Your task to perform on an android device: Clear all items from cart on newegg.com. Add usb-c to usb-b to the cart on newegg.com, then select checkout. Image 0: 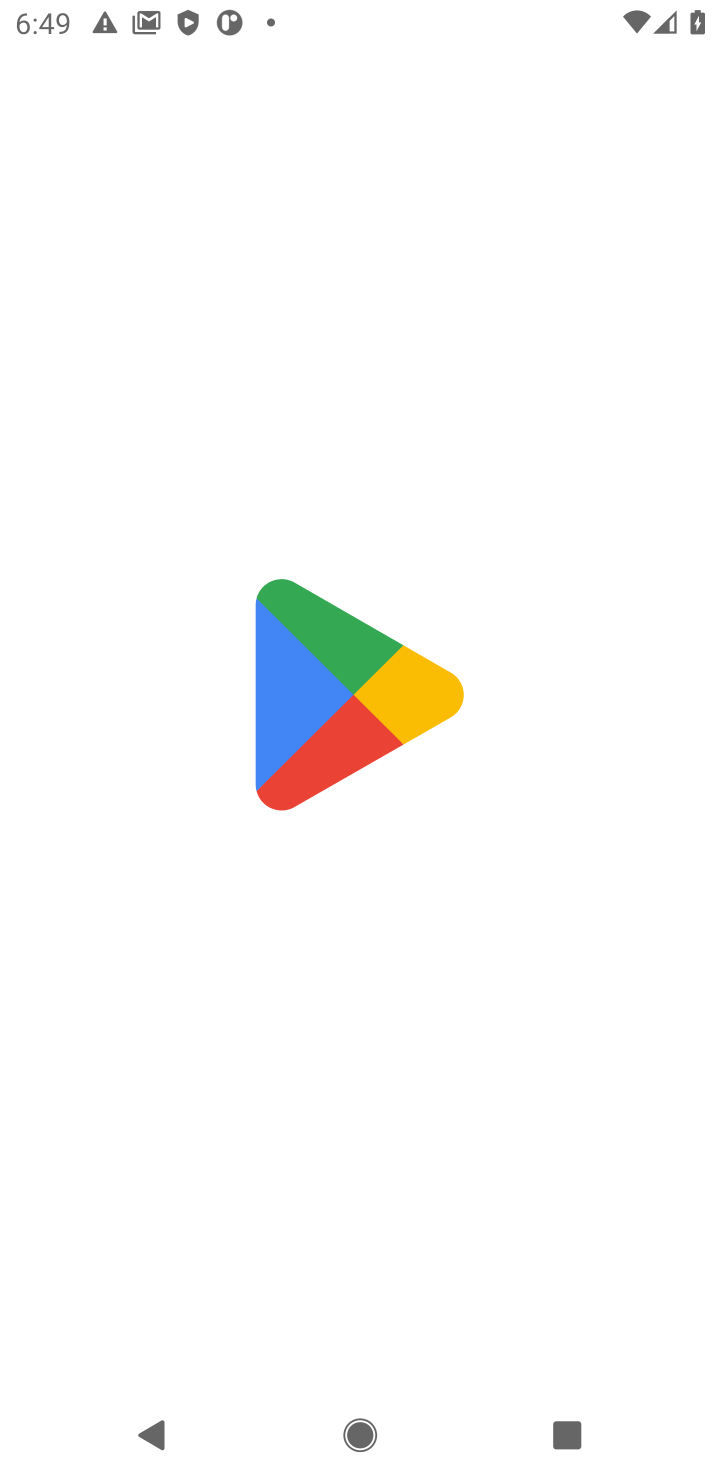
Step 0: press home button
Your task to perform on an android device: Clear all items from cart on newegg.com. Add usb-c to usb-b to the cart on newegg.com, then select checkout. Image 1: 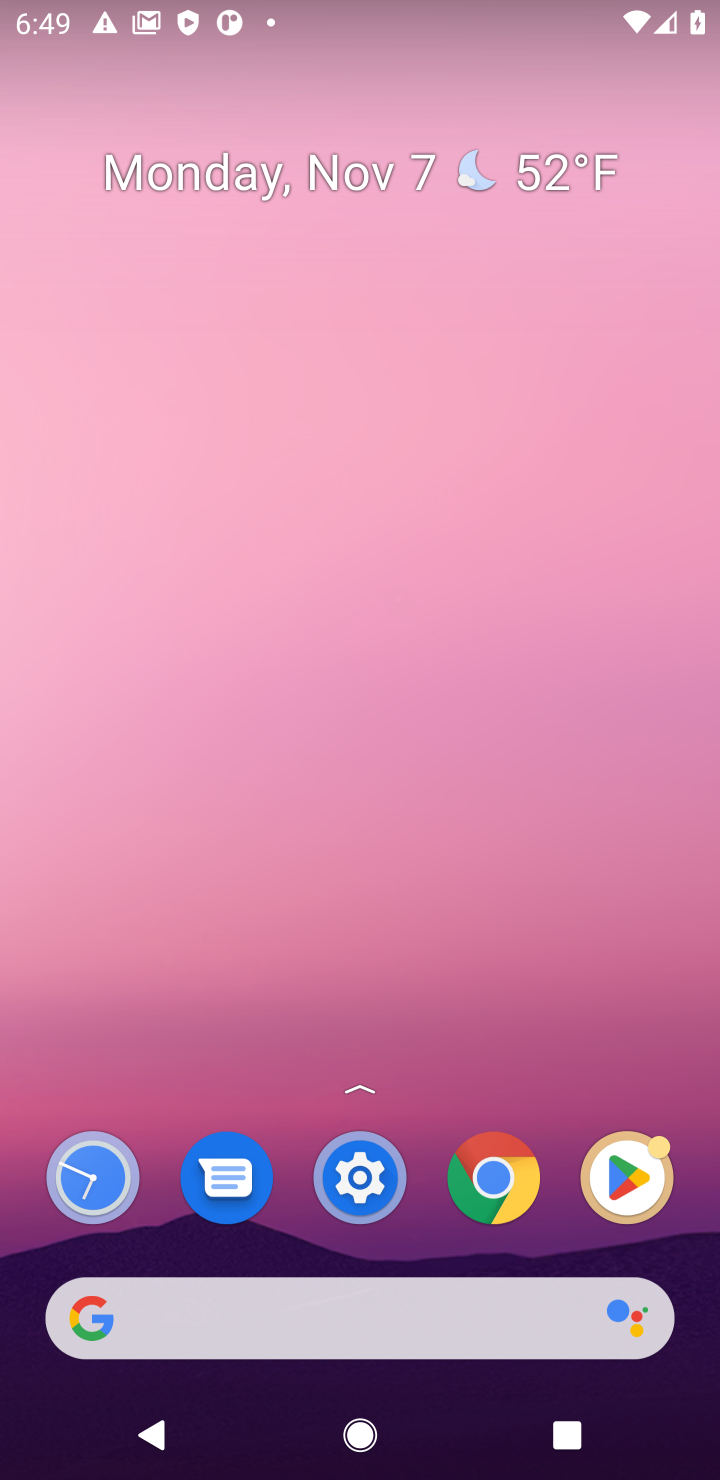
Step 1: press home button
Your task to perform on an android device: Clear all items from cart on newegg.com. Add usb-c to usb-b to the cart on newegg.com, then select checkout. Image 2: 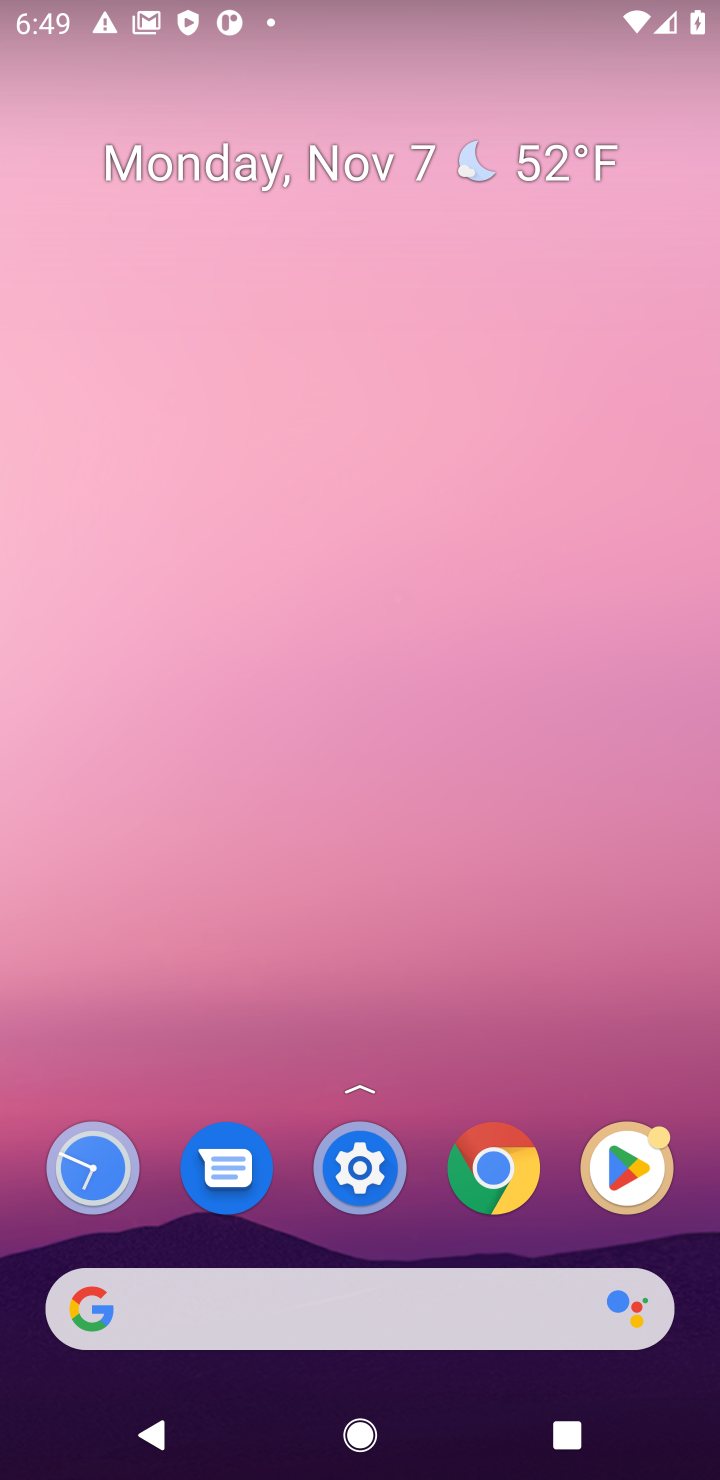
Step 2: click (307, 1344)
Your task to perform on an android device: Clear all items from cart on newegg.com. Add usb-c to usb-b to the cart on newegg.com, then select checkout. Image 3: 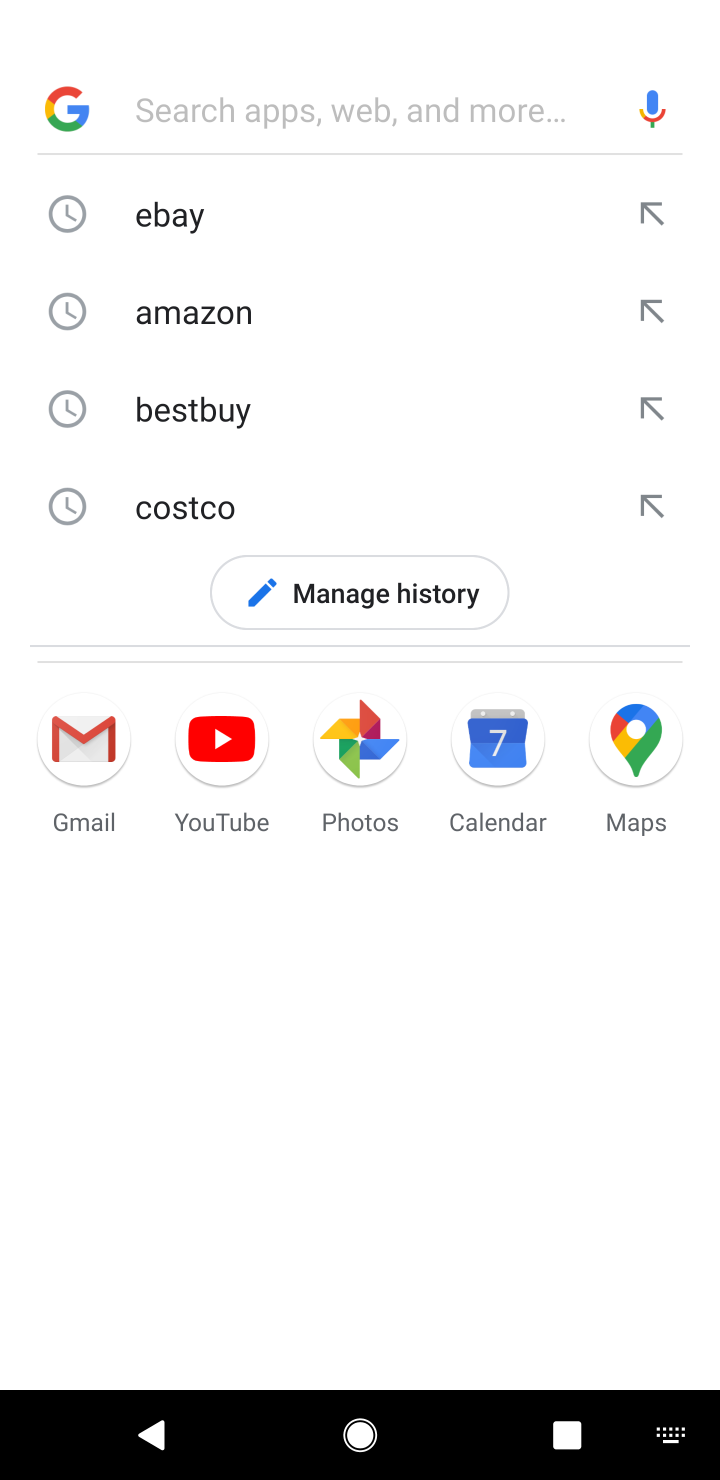
Step 3: type "newegg.com"
Your task to perform on an android device: Clear all items from cart on newegg.com. Add usb-c to usb-b to the cart on newegg.com, then select checkout. Image 4: 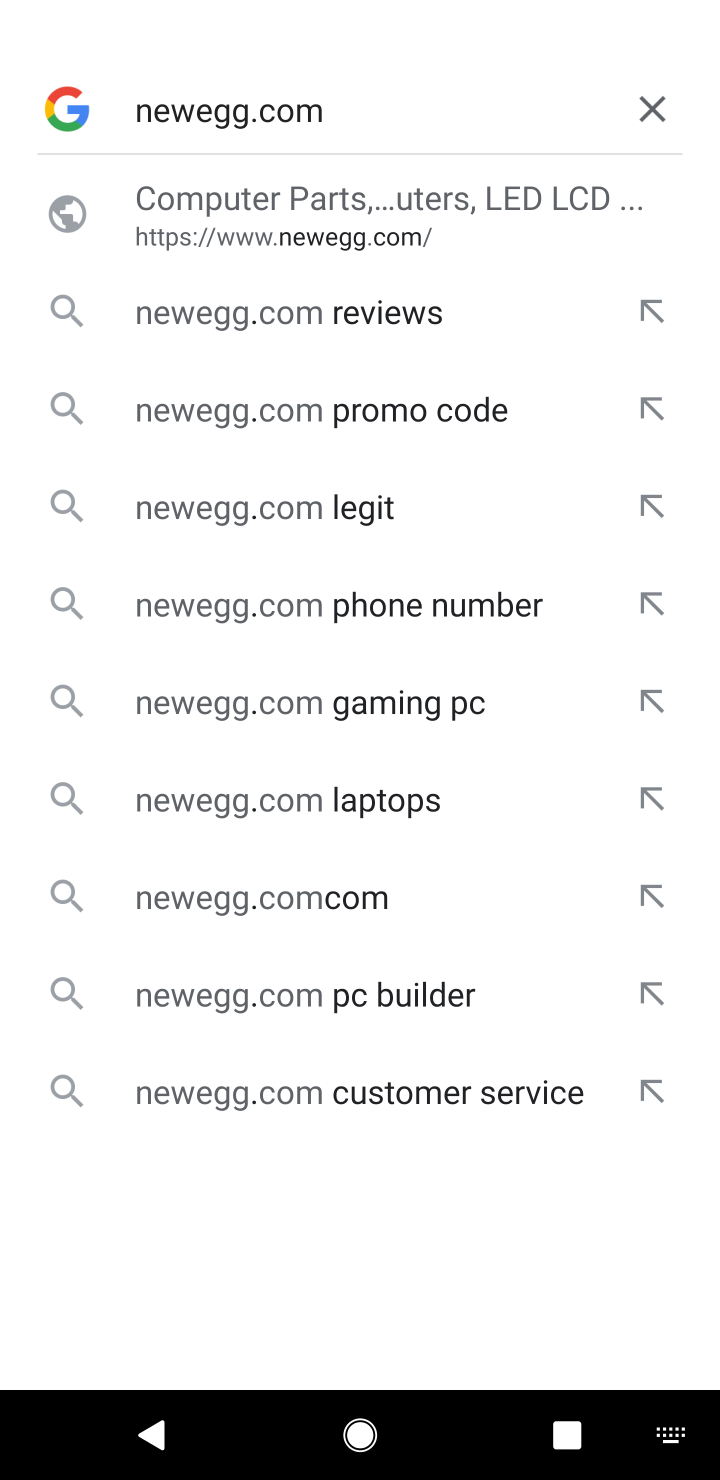
Step 4: type ""
Your task to perform on an android device: Clear all items from cart on newegg.com. Add usb-c to usb-b to the cart on newegg.com, then select checkout. Image 5: 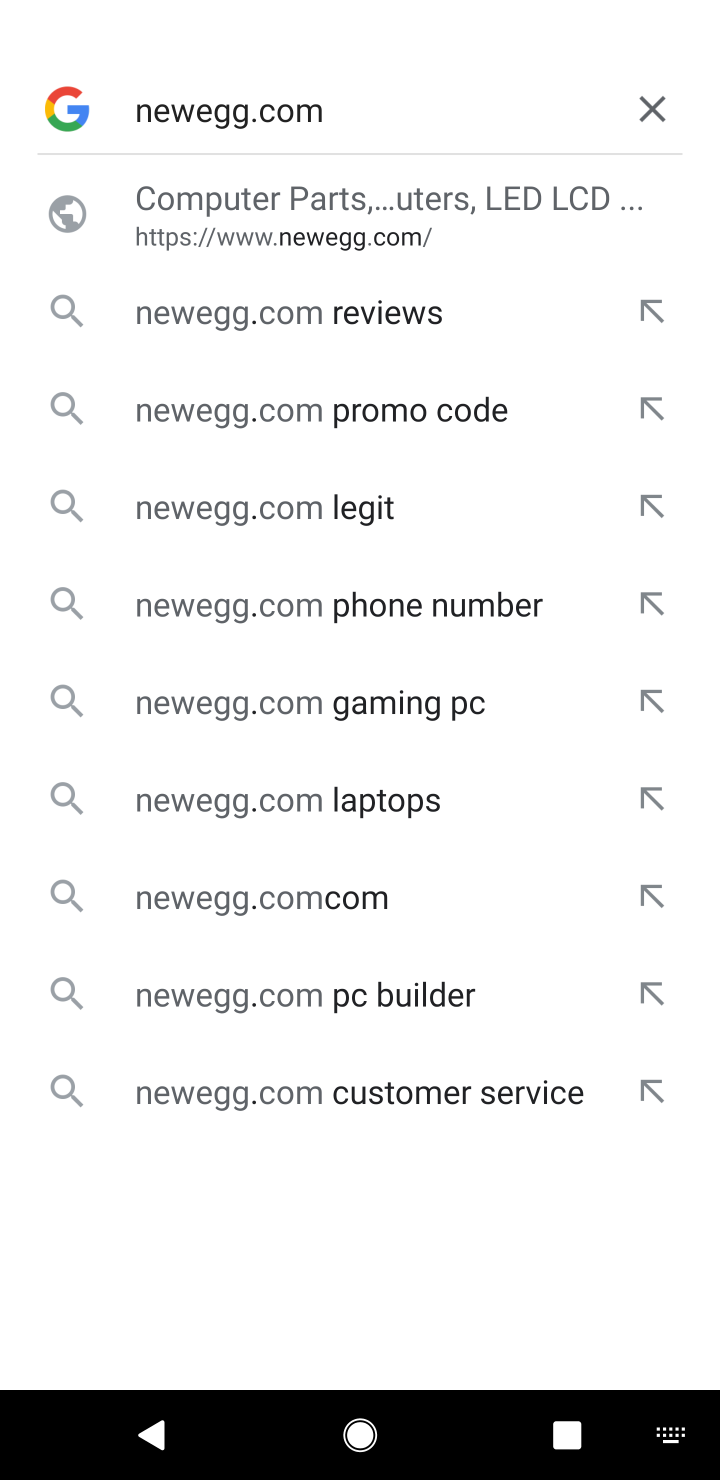
Step 5: press enter
Your task to perform on an android device: Clear all items from cart on newegg.com. Add usb-c to usb-b to the cart on newegg.com, then select checkout. Image 6: 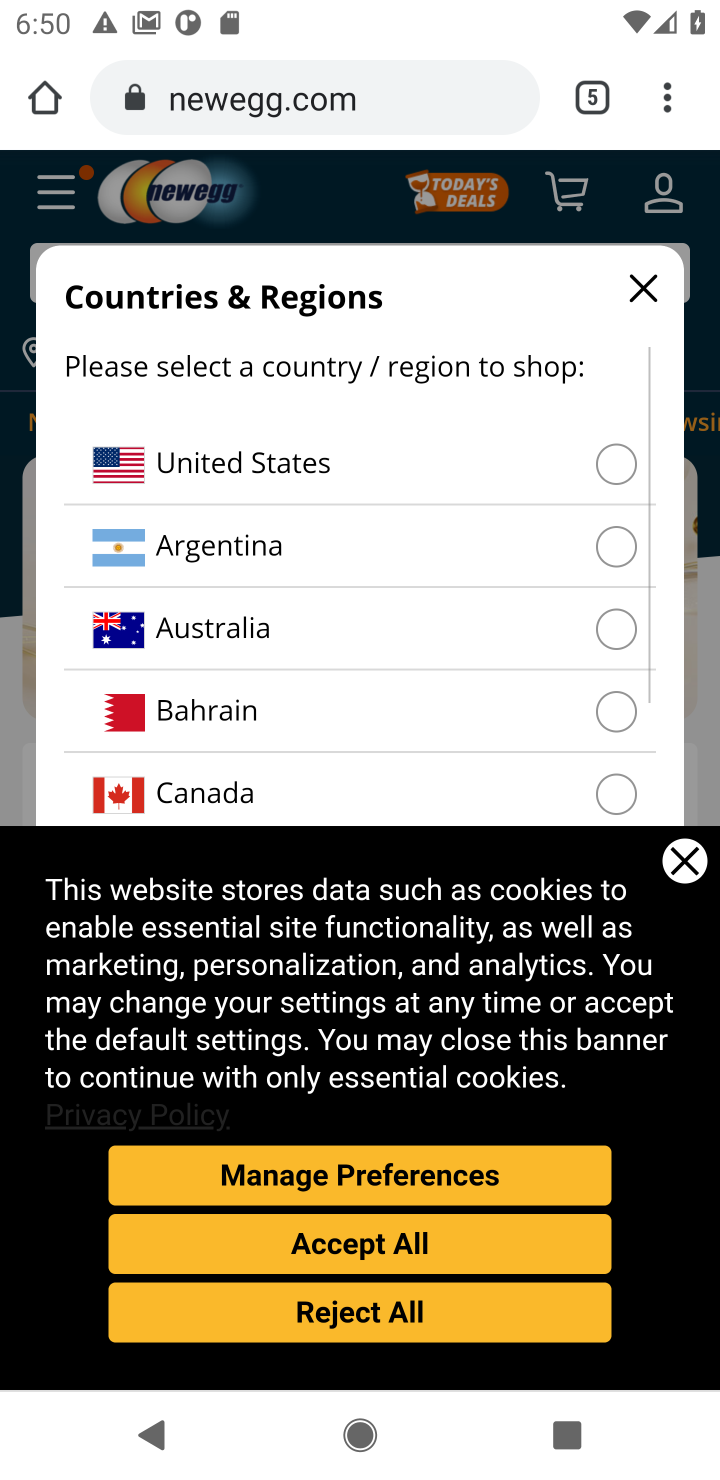
Step 6: click (611, 457)
Your task to perform on an android device: Clear all items from cart on newegg.com. Add usb-c to usb-b to the cart on newegg.com, then select checkout. Image 7: 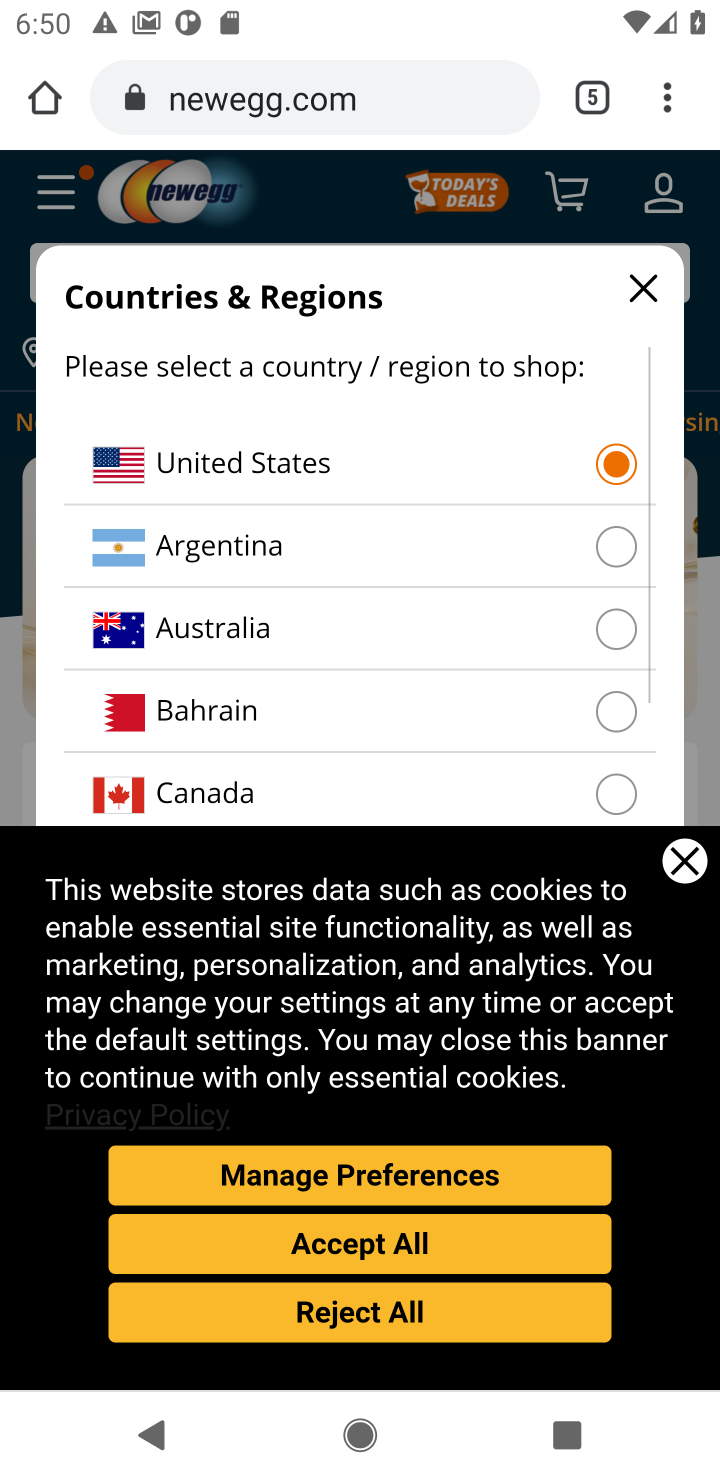
Step 7: click (396, 1304)
Your task to perform on an android device: Clear all items from cart on newegg.com. Add usb-c to usb-b to the cart on newegg.com, then select checkout. Image 8: 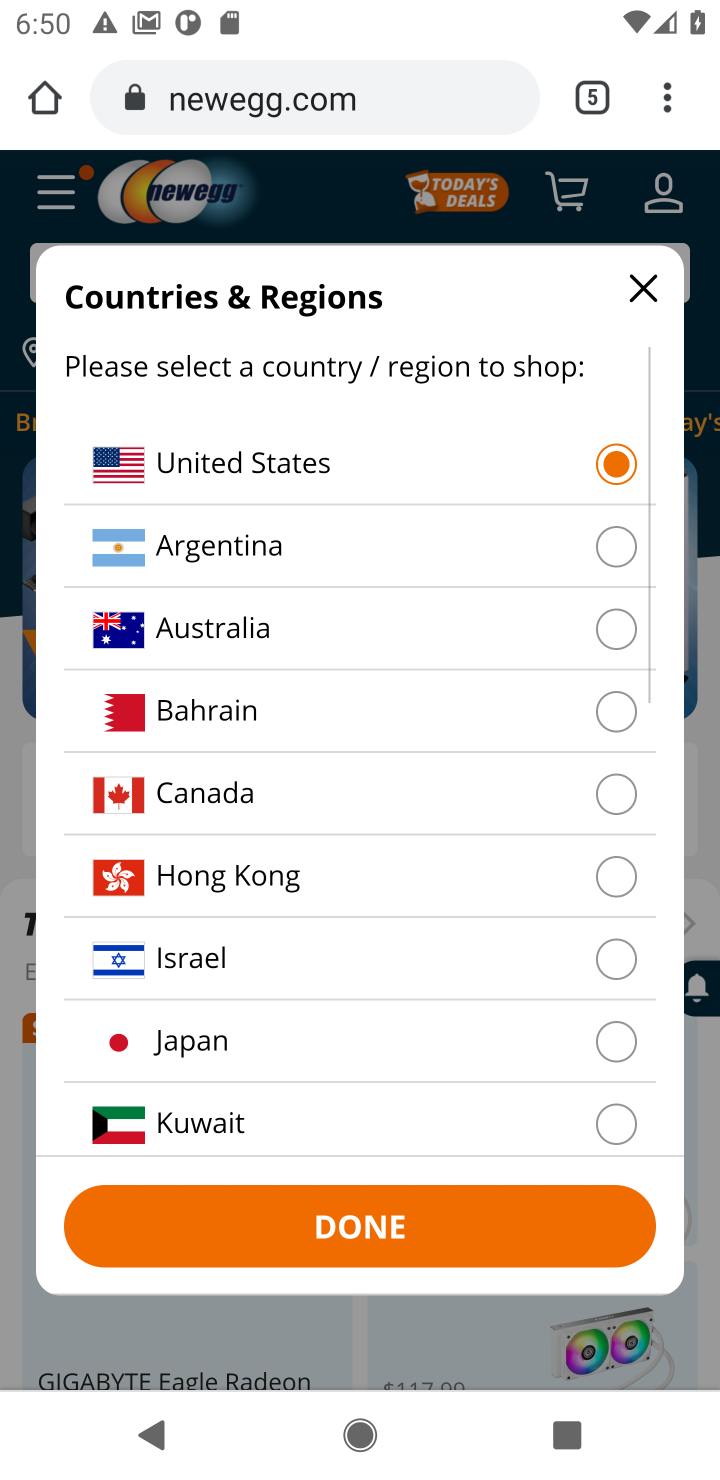
Step 8: click (431, 1219)
Your task to perform on an android device: Clear all items from cart on newegg.com. Add usb-c to usb-b to the cart on newegg.com, then select checkout. Image 9: 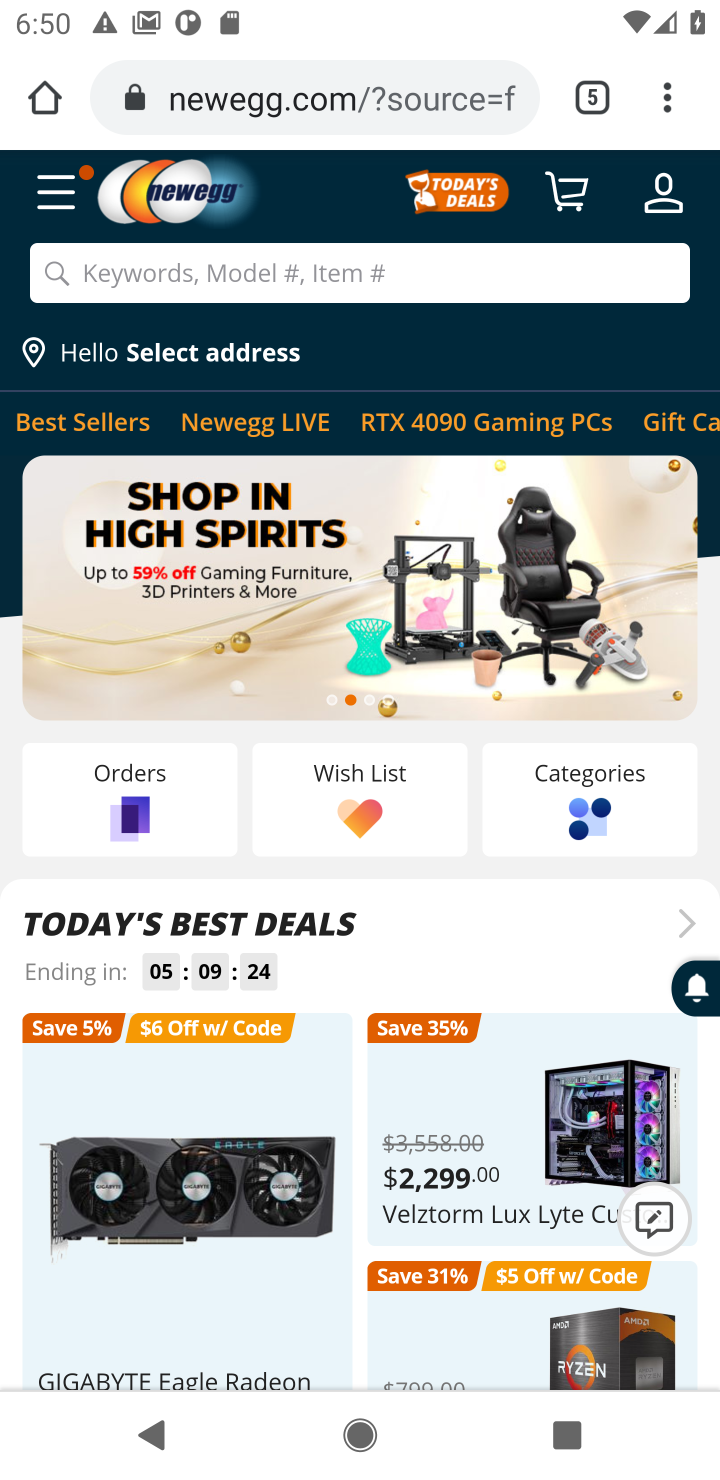
Step 9: drag from (458, 824) to (485, 278)
Your task to perform on an android device: Clear all items from cart on newegg.com. Add usb-c to usb-b to the cart on newegg.com, then select checkout. Image 10: 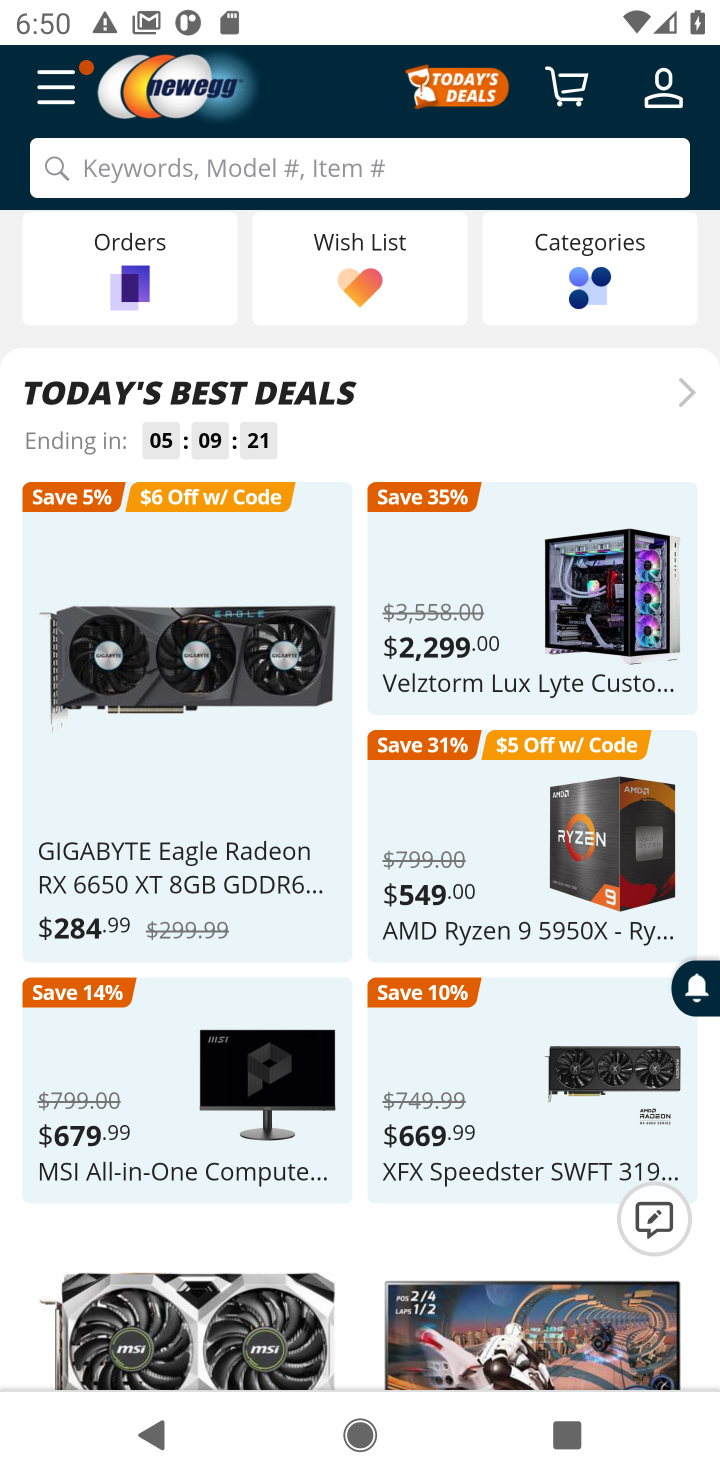
Step 10: click (175, 876)
Your task to perform on an android device: Clear all items from cart on newegg.com. Add usb-c to usb-b to the cart on newegg.com, then select checkout. Image 11: 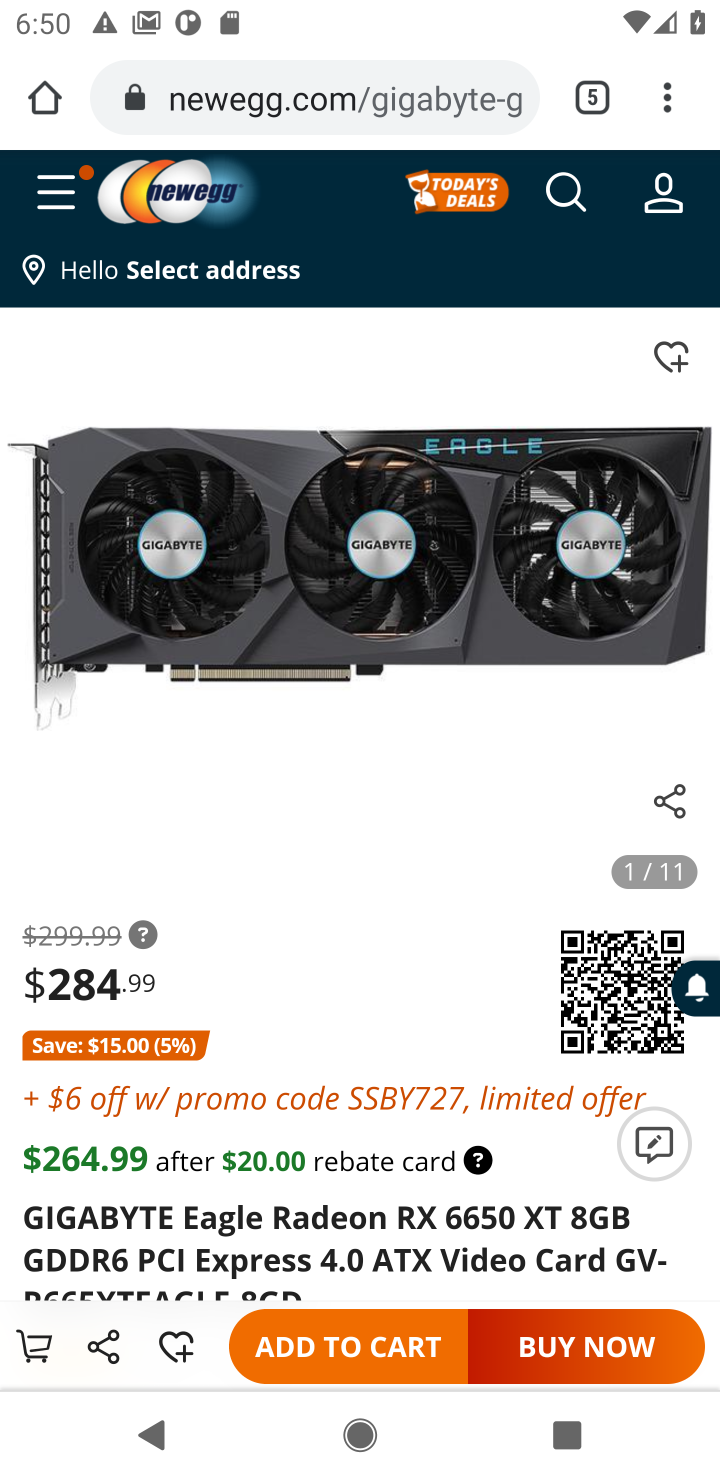
Step 11: click (382, 1342)
Your task to perform on an android device: Clear all items from cart on newegg.com. Add usb-c to usb-b to the cart on newegg.com, then select checkout. Image 12: 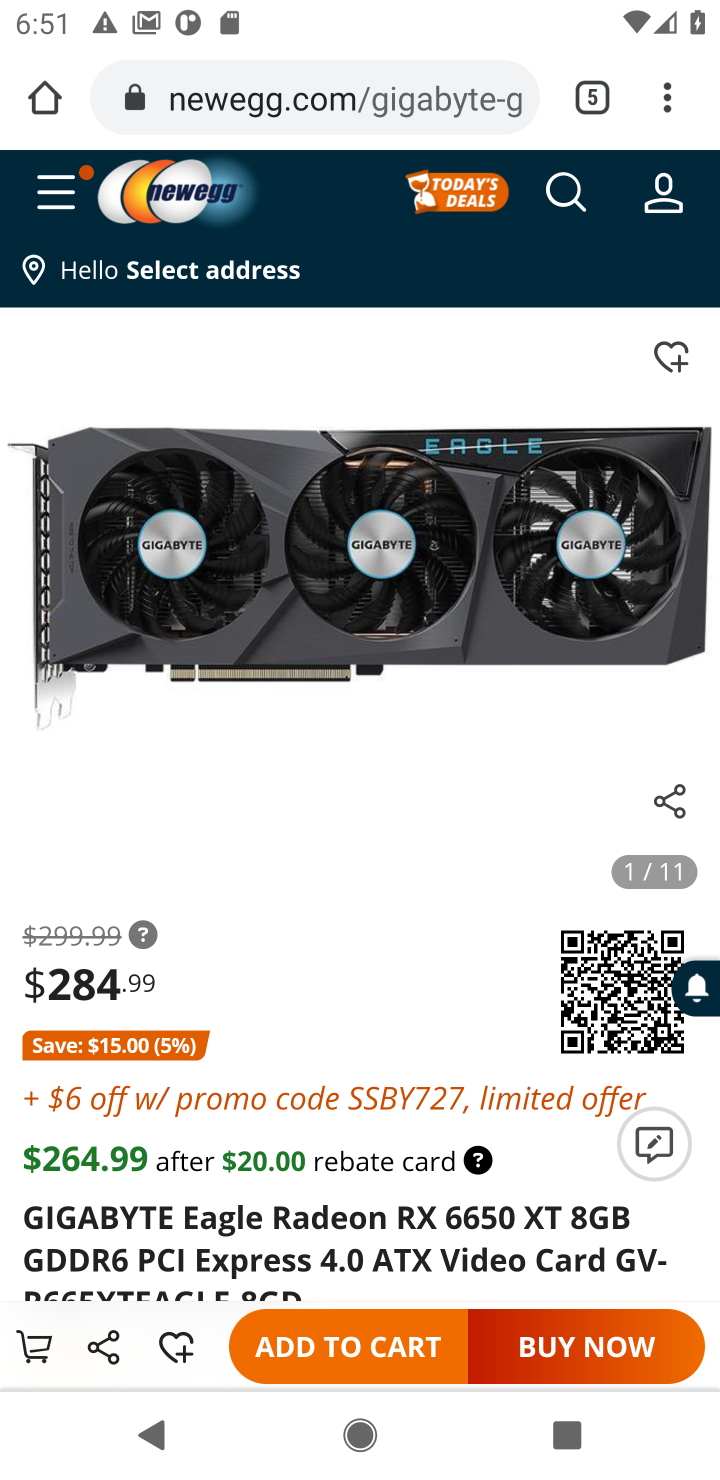
Step 12: task complete